Your task to perform on an android device: Open display settings Image 0: 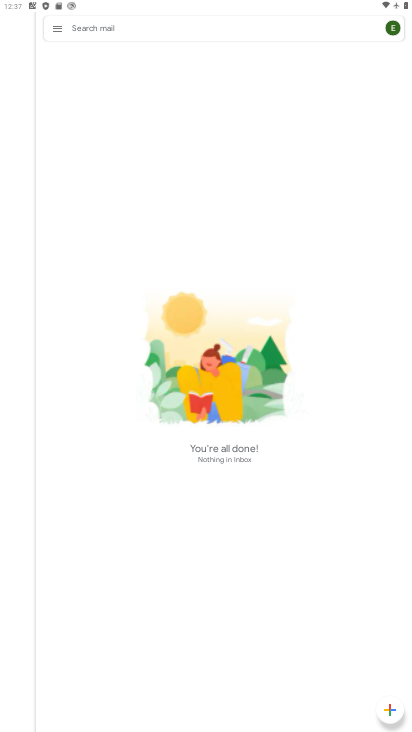
Step 0: press home button
Your task to perform on an android device: Open display settings Image 1: 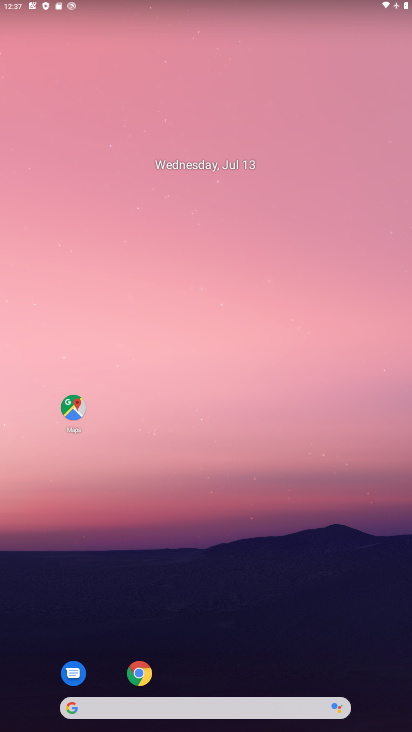
Step 1: drag from (246, 647) to (267, 85)
Your task to perform on an android device: Open display settings Image 2: 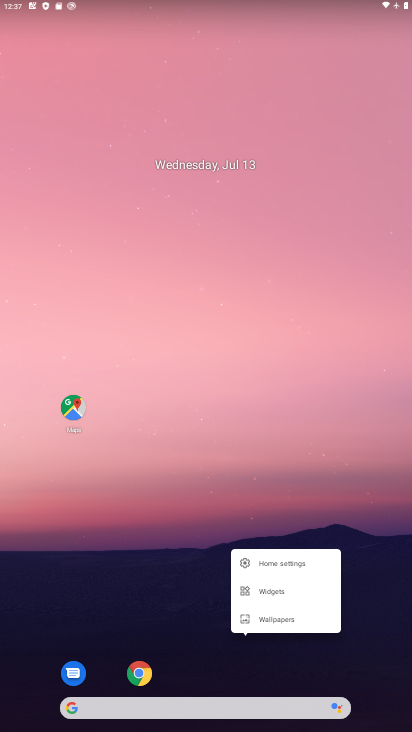
Step 2: click (142, 362)
Your task to perform on an android device: Open display settings Image 3: 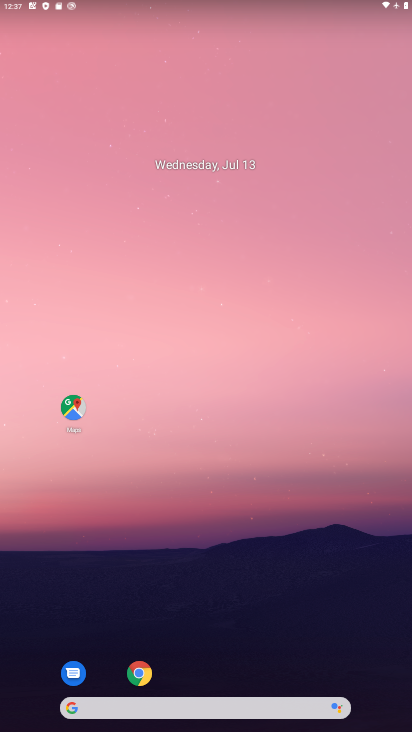
Step 3: drag from (212, 663) to (280, 228)
Your task to perform on an android device: Open display settings Image 4: 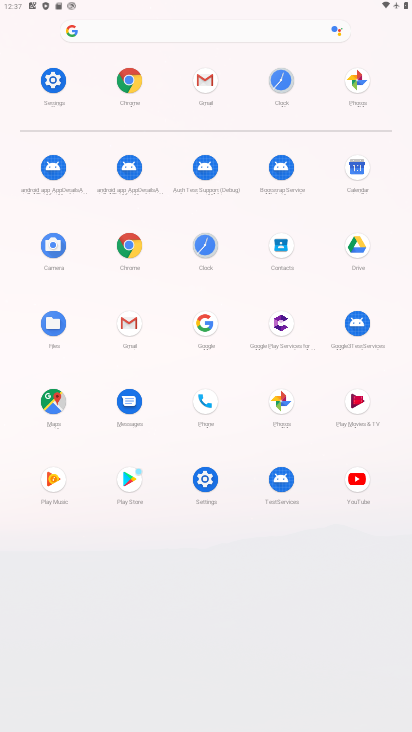
Step 4: click (61, 103)
Your task to perform on an android device: Open display settings Image 5: 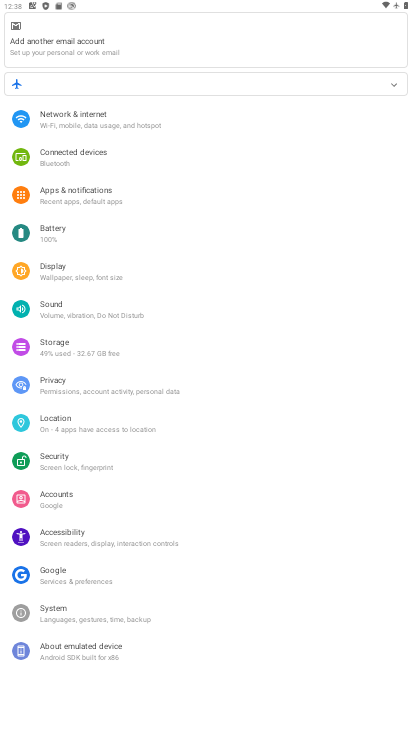
Step 5: click (109, 259)
Your task to perform on an android device: Open display settings Image 6: 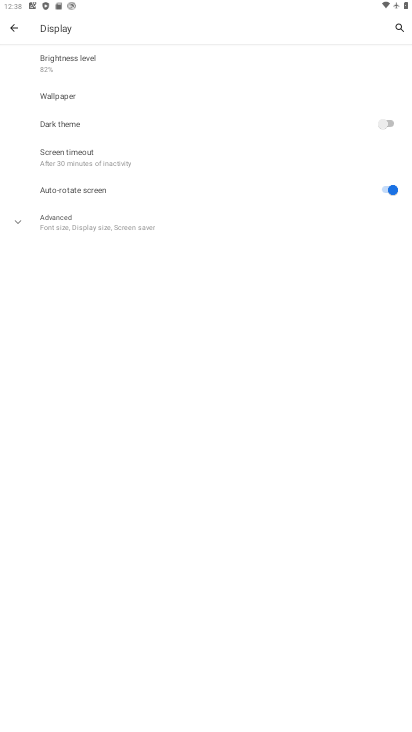
Step 6: task complete